Your task to perform on an android device: Open calendar and show me the first week of next month Image 0: 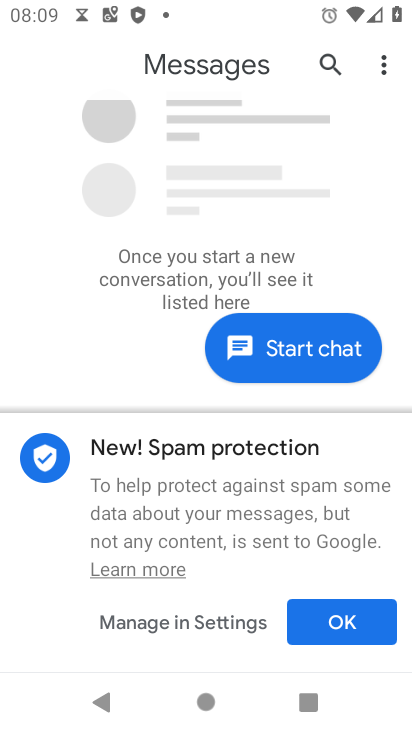
Step 0: press home button
Your task to perform on an android device: Open calendar and show me the first week of next month Image 1: 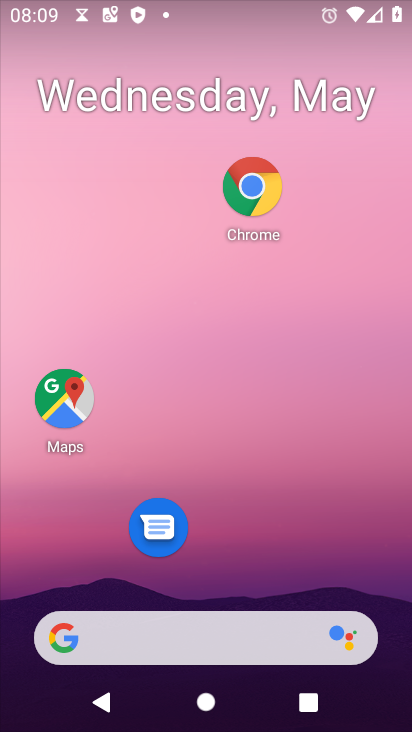
Step 1: drag from (288, 548) to (336, 144)
Your task to perform on an android device: Open calendar and show me the first week of next month Image 2: 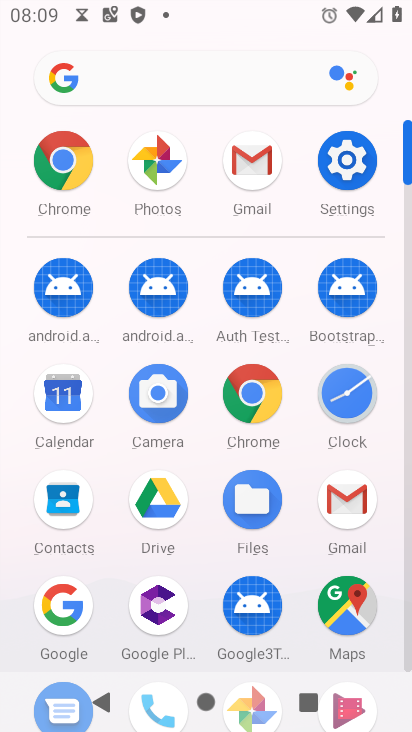
Step 2: click (64, 400)
Your task to perform on an android device: Open calendar and show me the first week of next month Image 3: 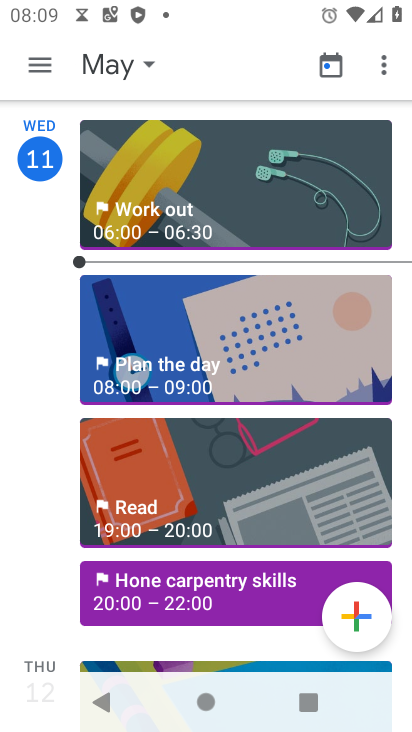
Step 3: click (141, 59)
Your task to perform on an android device: Open calendar and show me the first week of next month Image 4: 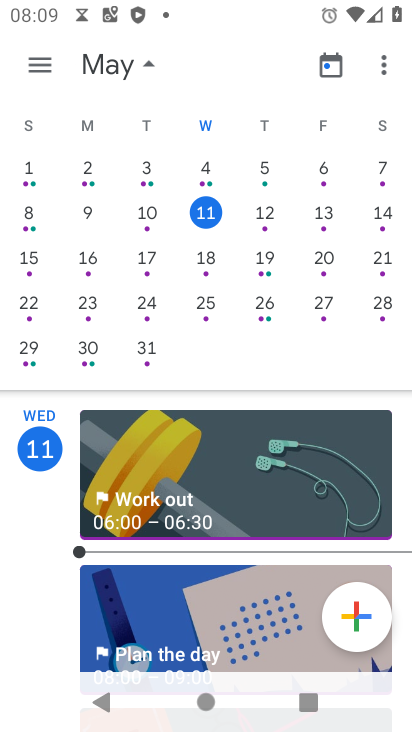
Step 4: drag from (381, 210) to (32, 226)
Your task to perform on an android device: Open calendar and show me the first week of next month Image 5: 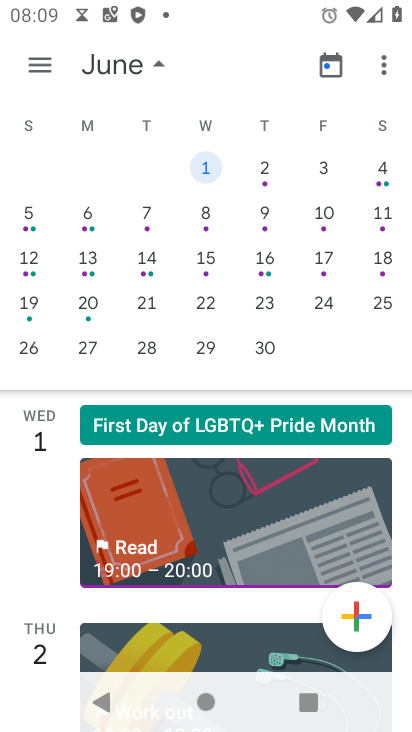
Step 5: click (323, 172)
Your task to perform on an android device: Open calendar and show me the first week of next month Image 6: 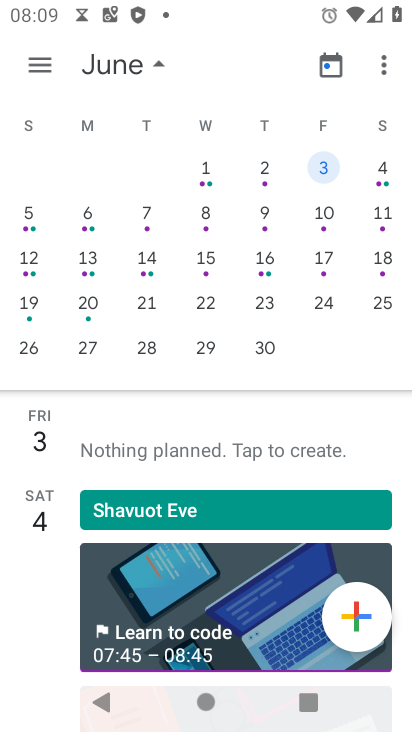
Step 6: task complete